Your task to perform on an android device: Open calendar and show me the third week of next month Image 0: 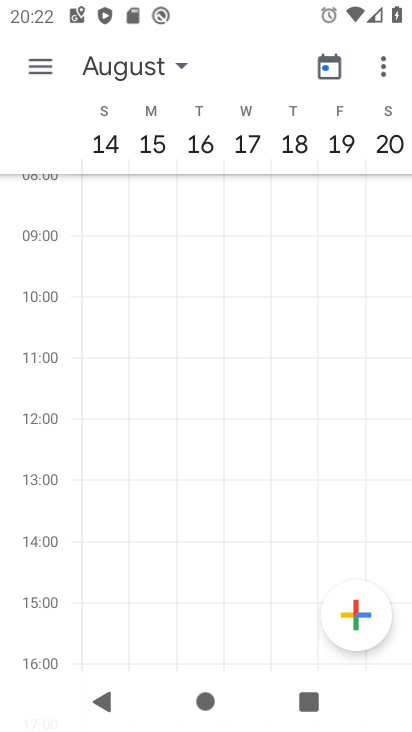
Step 0: drag from (370, 382) to (0, 299)
Your task to perform on an android device: Open calendar and show me the third week of next month Image 1: 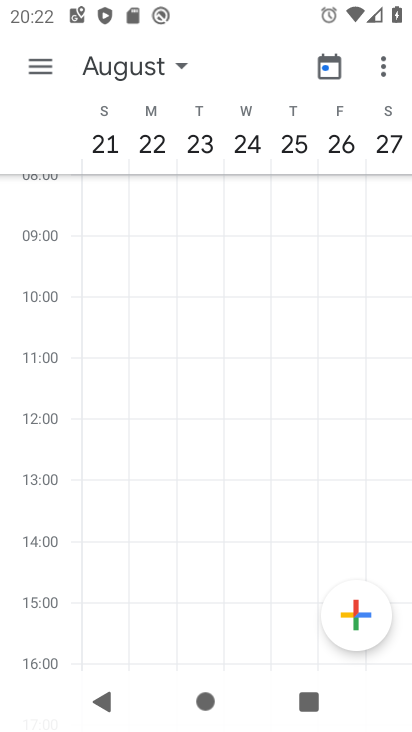
Step 1: task complete